Your task to perform on an android device: Open Yahoo.com Image 0: 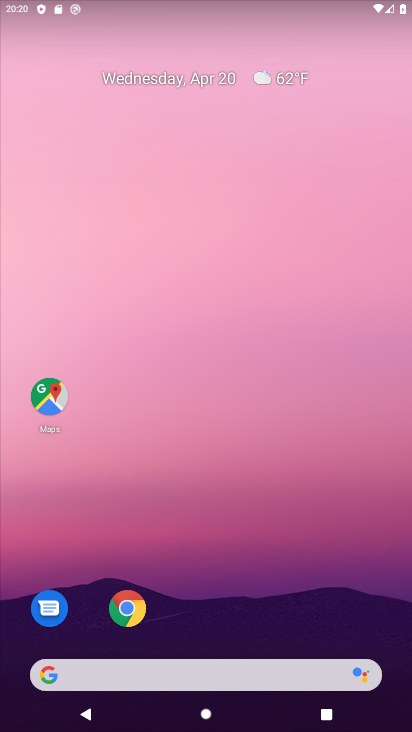
Step 0: drag from (227, 569) to (189, 43)
Your task to perform on an android device: Open Yahoo.com Image 1: 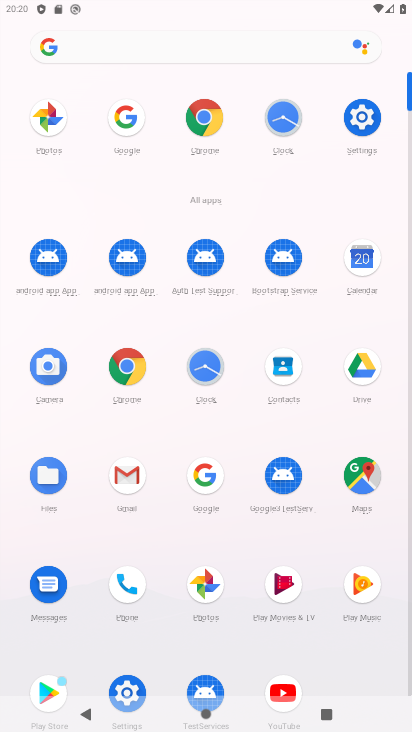
Step 1: click (198, 121)
Your task to perform on an android device: Open Yahoo.com Image 2: 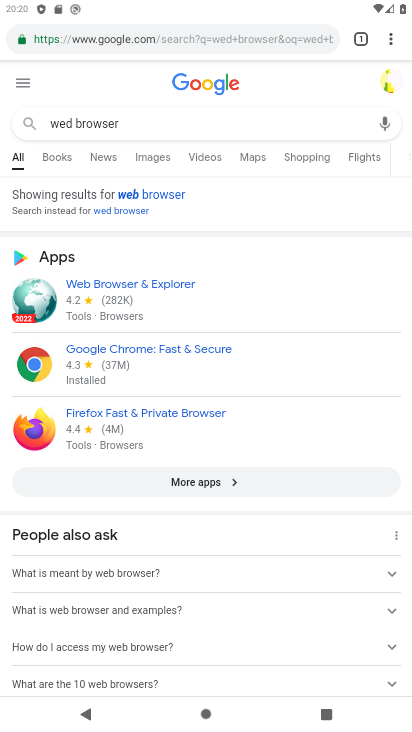
Step 2: drag from (389, 43) to (239, 437)
Your task to perform on an android device: Open Yahoo.com Image 3: 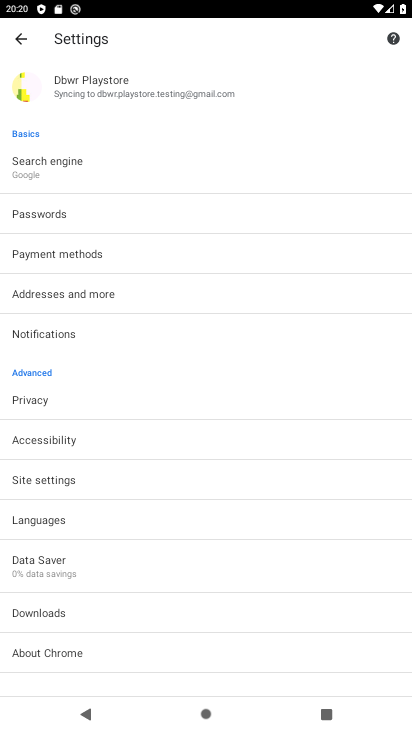
Step 3: click (23, 39)
Your task to perform on an android device: Open Yahoo.com Image 4: 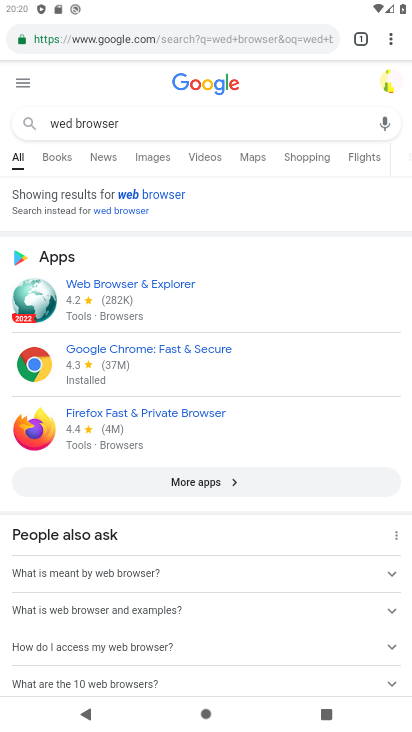
Step 4: drag from (387, 36) to (236, 70)
Your task to perform on an android device: Open Yahoo.com Image 5: 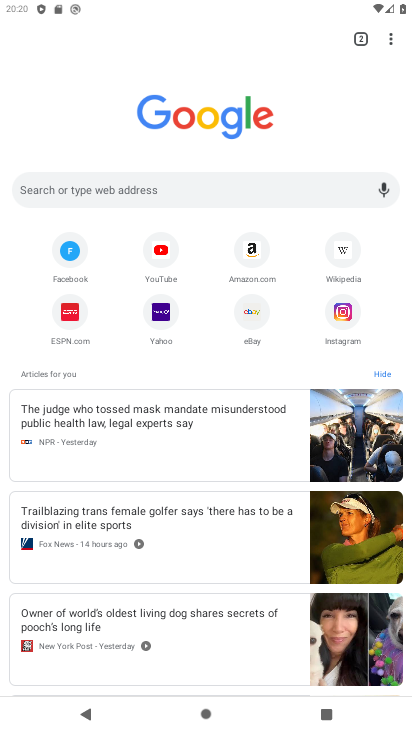
Step 5: click (147, 320)
Your task to perform on an android device: Open Yahoo.com Image 6: 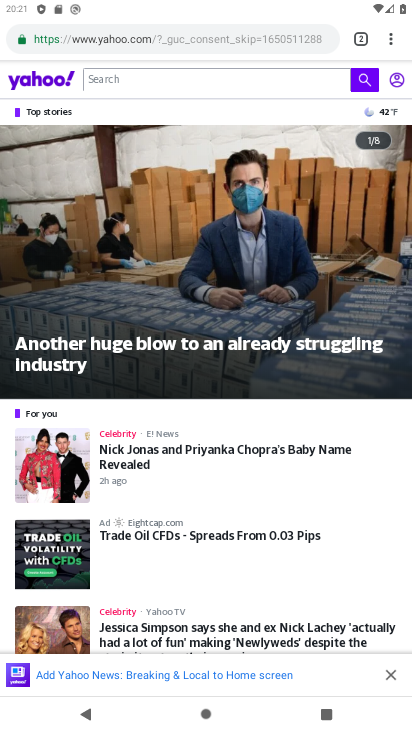
Step 6: drag from (393, 34) to (388, 104)
Your task to perform on an android device: Open Yahoo.com Image 7: 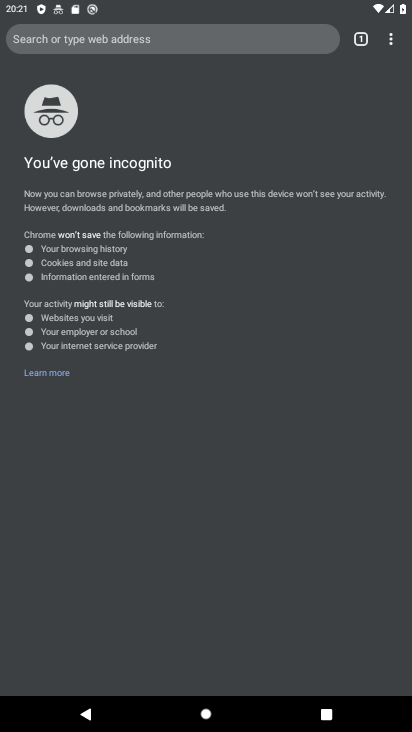
Step 7: click (359, 37)
Your task to perform on an android device: Open Yahoo.com Image 8: 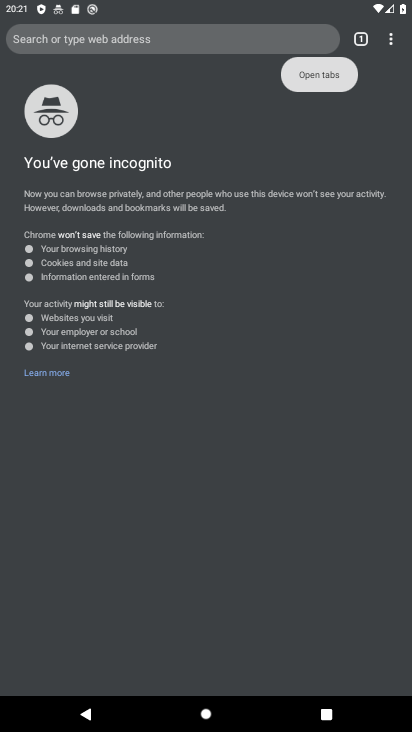
Step 8: click (359, 37)
Your task to perform on an android device: Open Yahoo.com Image 9: 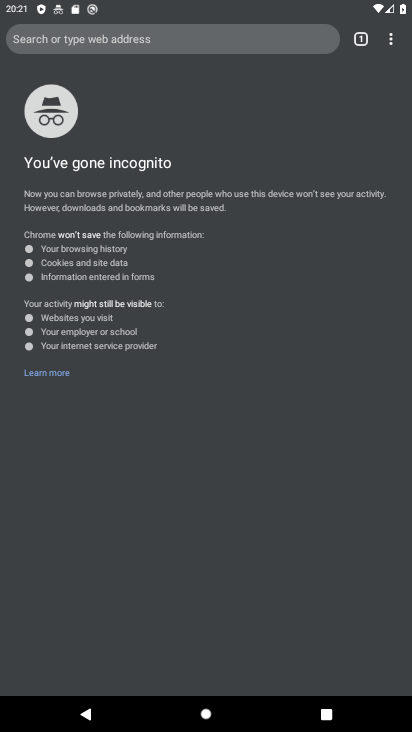
Step 9: drag from (391, 38) to (287, 70)
Your task to perform on an android device: Open Yahoo.com Image 10: 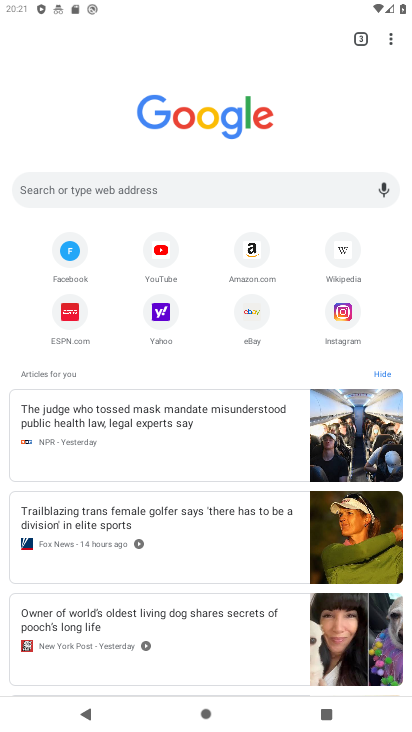
Step 10: click (166, 322)
Your task to perform on an android device: Open Yahoo.com Image 11: 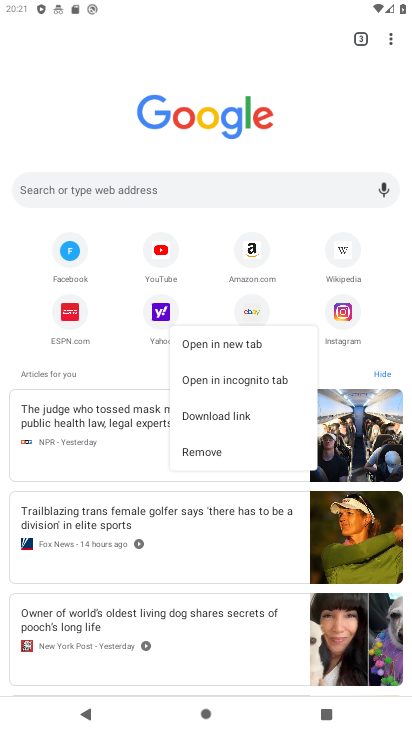
Step 11: click (358, 38)
Your task to perform on an android device: Open Yahoo.com Image 12: 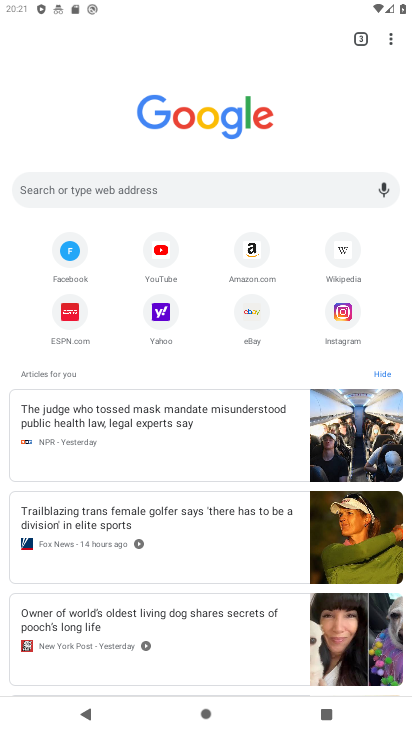
Step 12: click (170, 308)
Your task to perform on an android device: Open Yahoo.com Image 13: 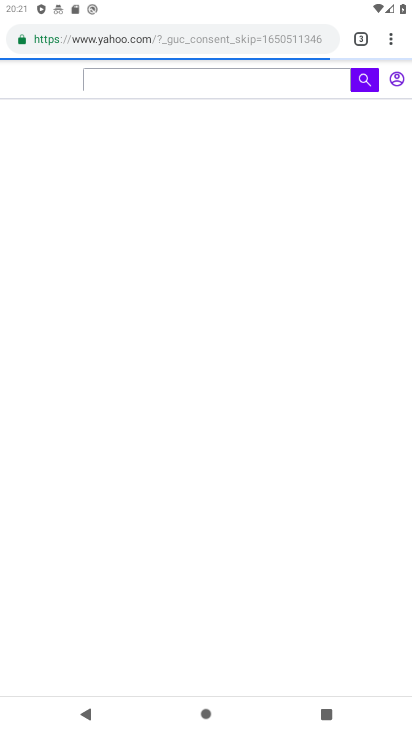
Step 13: task complete